Your task to perform on an android device: When is my next appointment? Image 0: 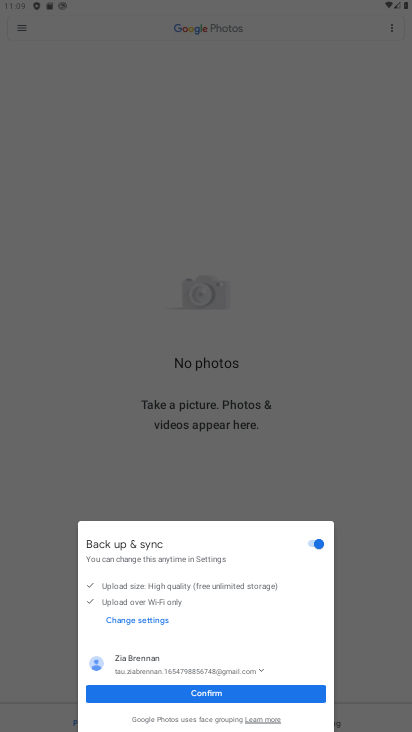
Step 0: press home button
Your task to perform on an android device: When is my next appointment? Image 1: 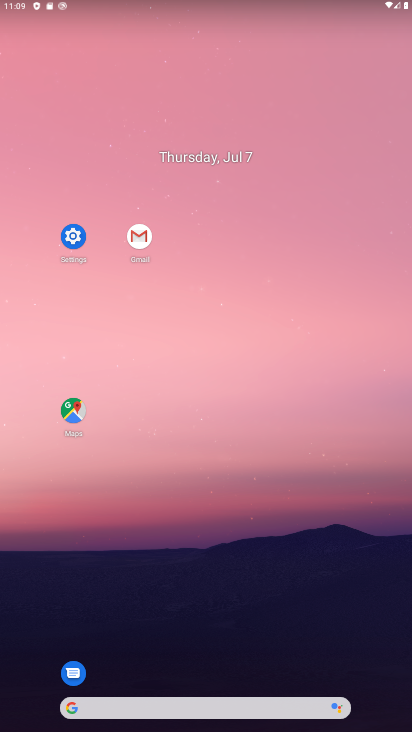
Step 1: drag from (255, 678) to (259, 165)
Your task to perform on an android device: When is my next appointment? Image 2: 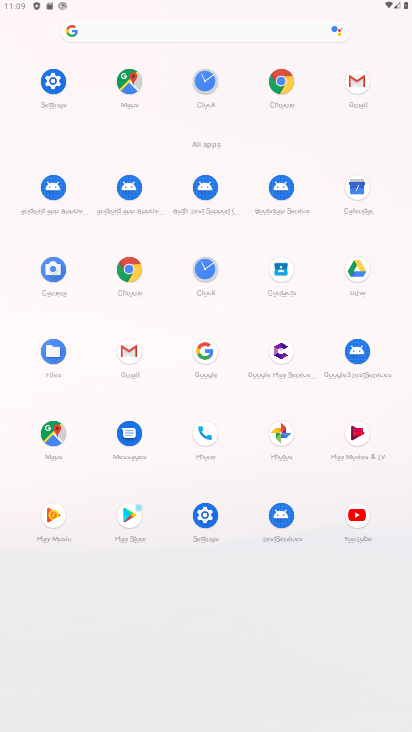
Step 2: drag from (283, 78) to (89, 154)
Your task to perform on an android device: When is my next appointment? Image 3: 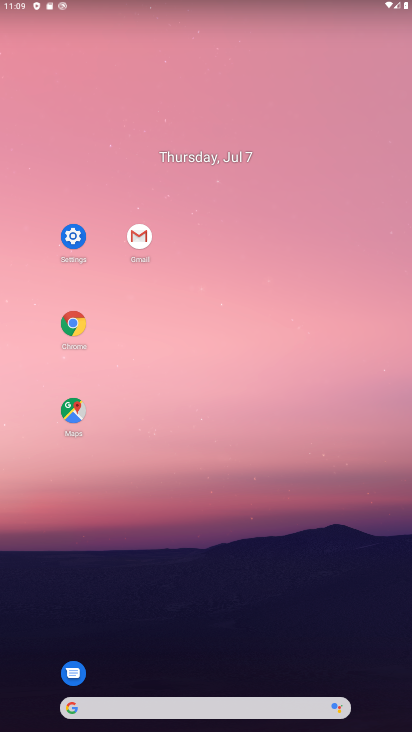
Step 3: click (65, 327)
Your task to perform on an android device: When is my next appointment? Image 4: 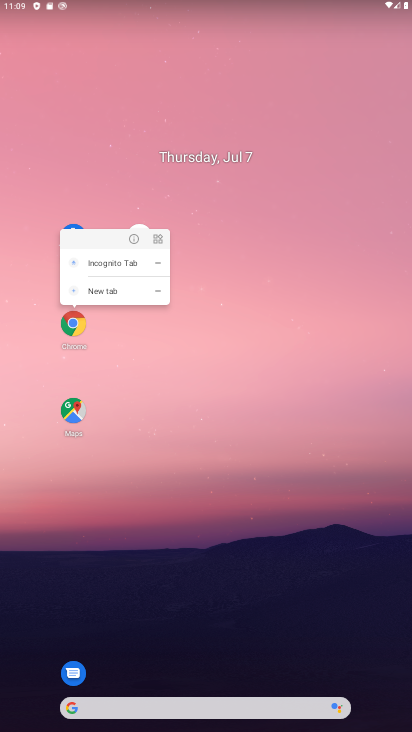
Step 4: click (319, 447)
Your task to perform on an android device: When is my next appointment? Image 5: 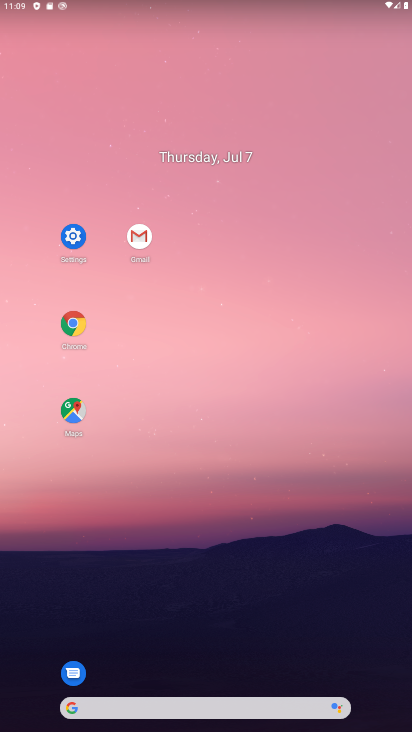
Step 5: drag from (200, 582) to (251, 74)
Your task to perform on an android device: When is my next appointment? Image 6: 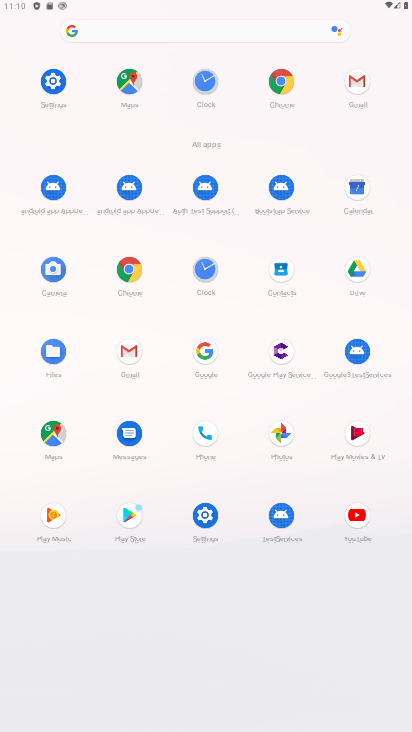
Step 6: drag from (360, 194) to (195, 219)
Your task to perform on an android device: When is my next appointment? Image 7: 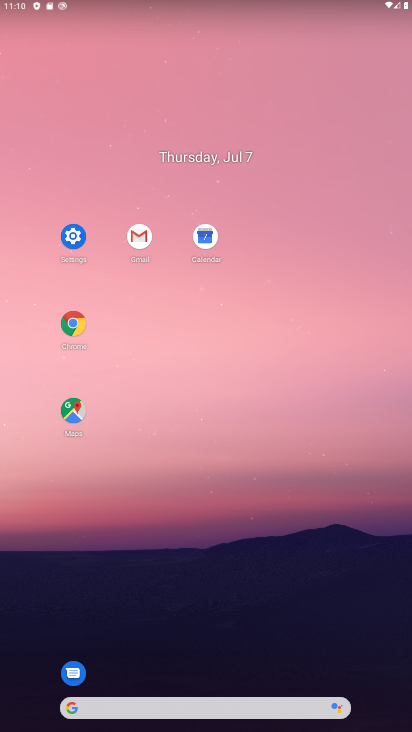
Step 7: click (199, 230)
Your task to perform on an android device: When is my next appointment? Image 8: 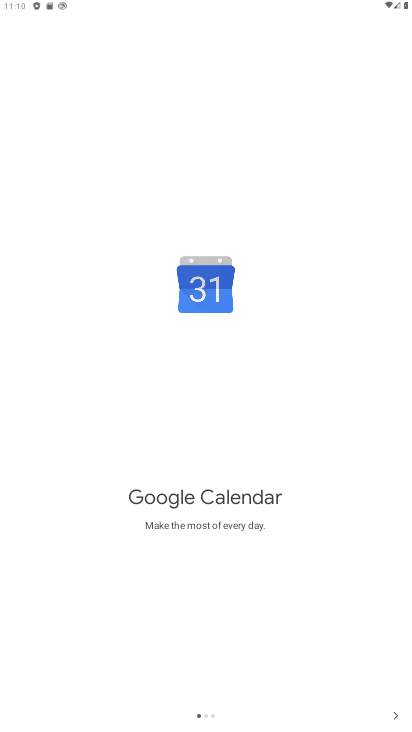
Step 8: click (393, 716)
Your task to perform on an android device: When is my next appointment? Image 9: 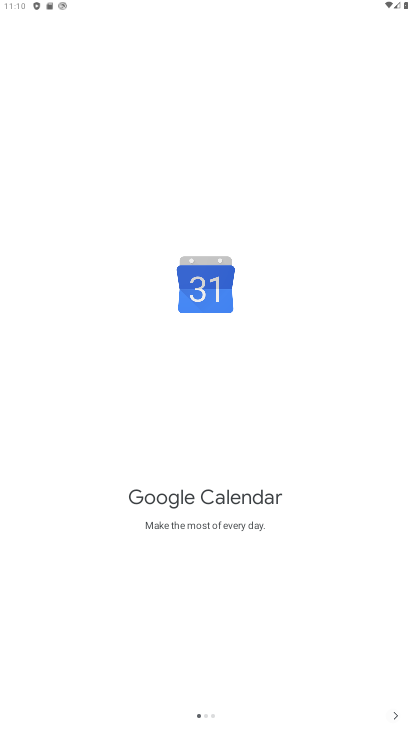
Step 9: click (393, 716)
Your task to perform on an android device: When is my next appointment? Image 10: 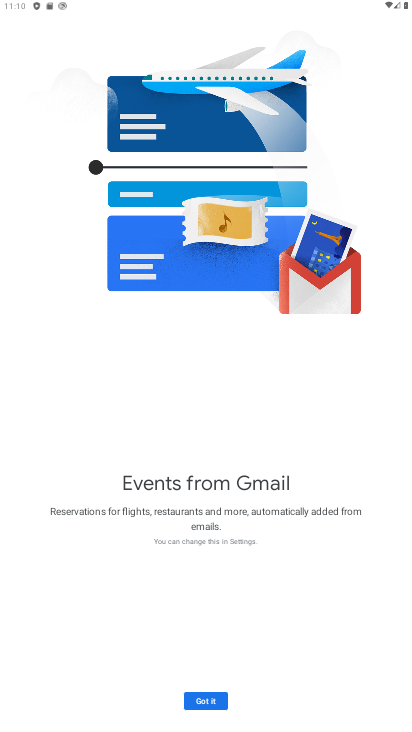
Step 10: click (208, 702)
Your task to perform on an android device: When is my next appointment? Image 11: 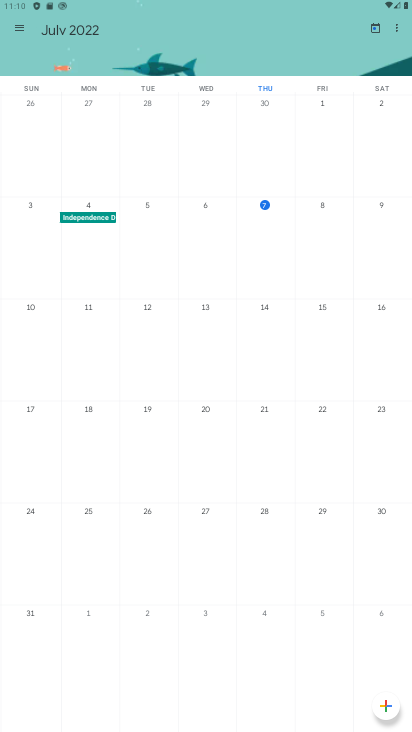
Step 11: click (325, 188)
Your task to perform on an android device: When is my next appointment? Image 12: 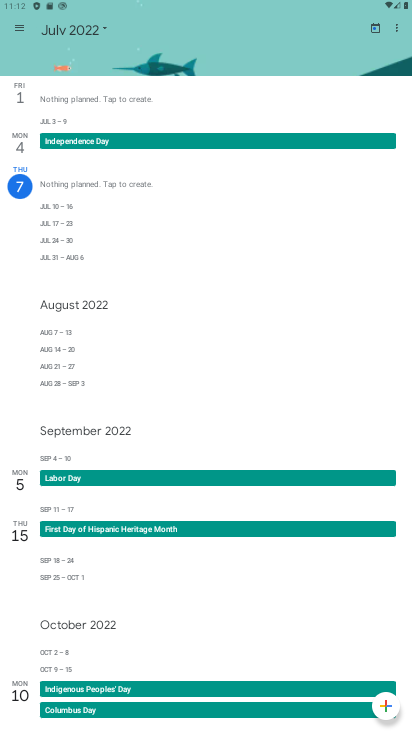
Step 12: task complete